Your task to perform on an android device: turn on location history Image 0: 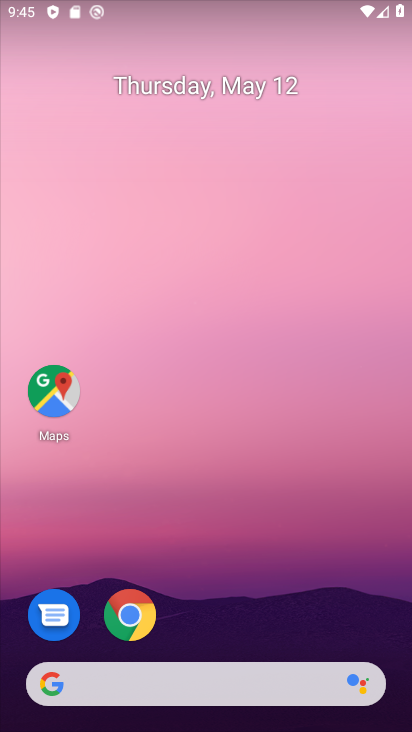
Step 0: drag from (210, 718) to (208, 141)
Your task to perform on an android device: turn on location history Image 1: 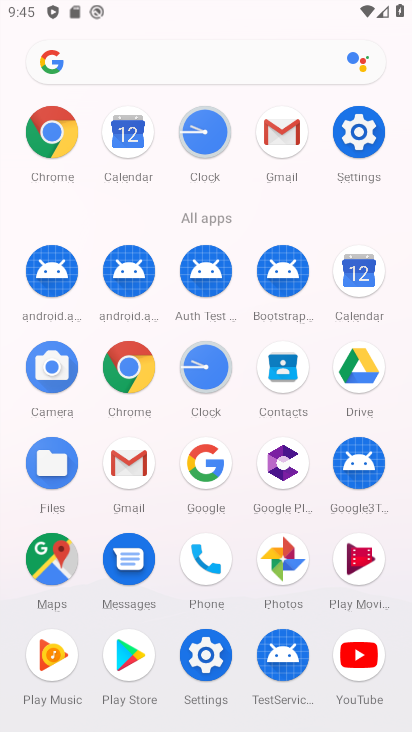
Step 1: click (367, 131)
Your task to perform on an android device: turn on location history Image 2: 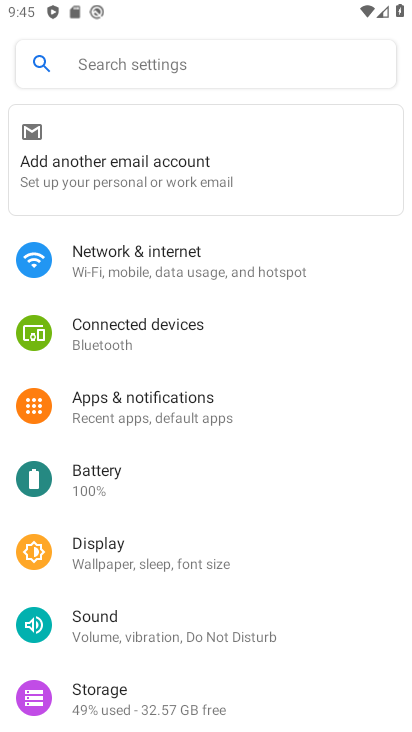
Step 2: drag from (83, 662) to (135, 339)
Your task to perform on an android device: turn on location history Image 3: 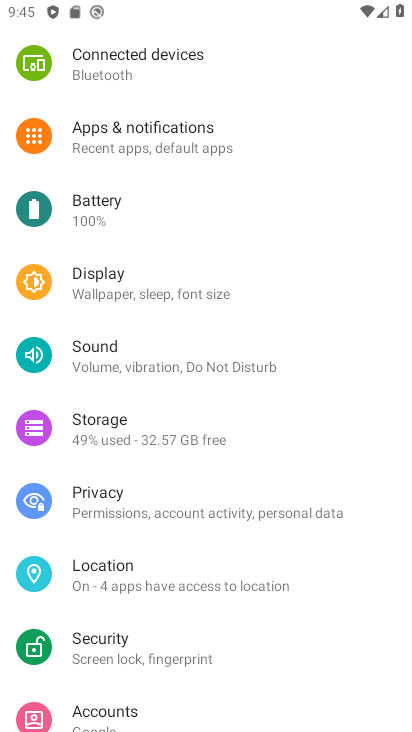
Step 3: click (151, 573)
Your task to perform on an android device: turn on location history Image 4: 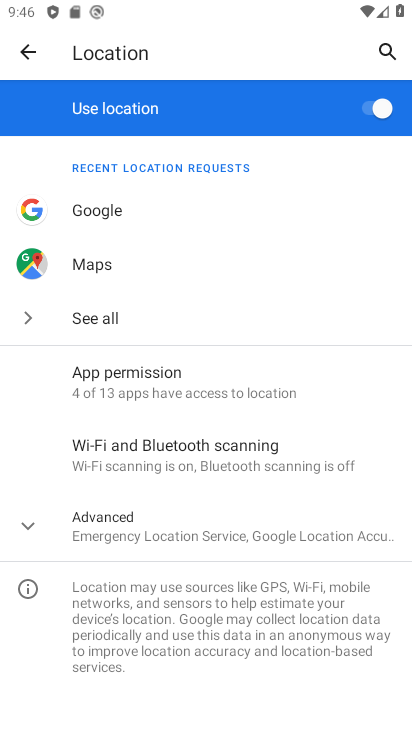
Step 4: click (113, 525)
Your task to perform on an android device: turn on location history Image 5: 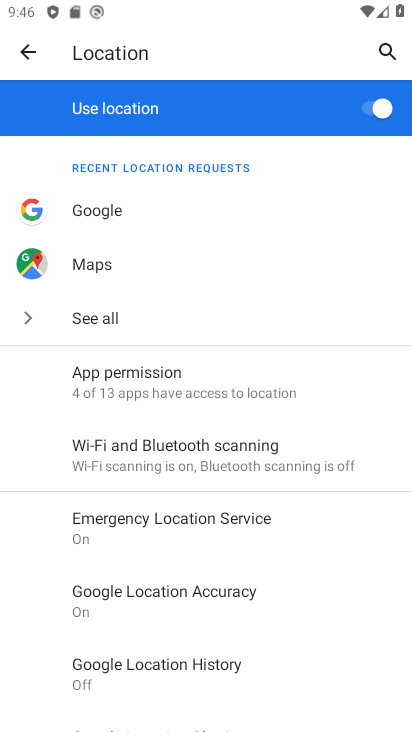
Step 5: click (157, 666)
Your task to perform on an android device: turn on location history Image 6: 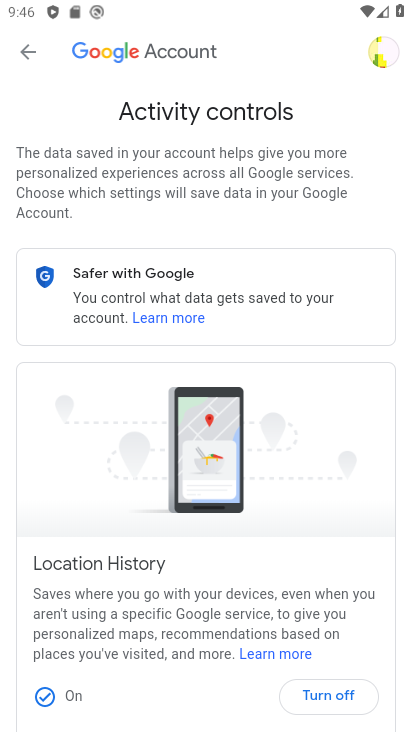
Step 6: task complete